Your task to perform on an android device: What's the weather? Image 0: 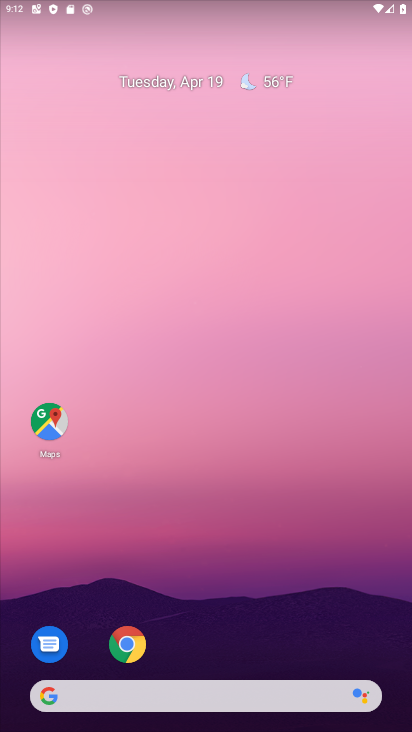
Step 0: drag from (213, 641) to (218, 137)
Your task to perform on an android device: What's the weather? Image 1: 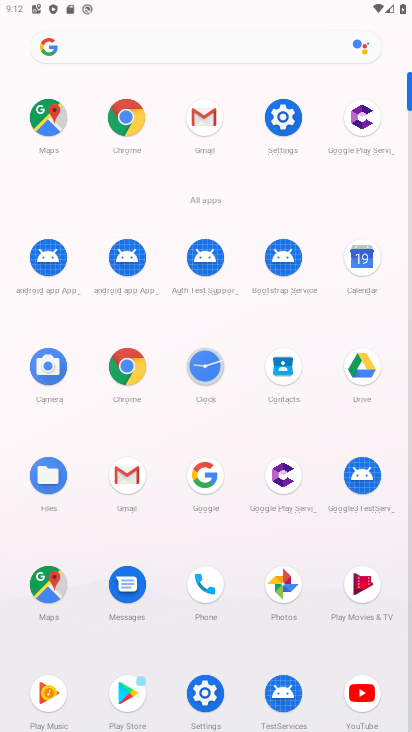
Step 1: click (196, 470)
Your task to perform on an android device: What's the weather? Image 2: 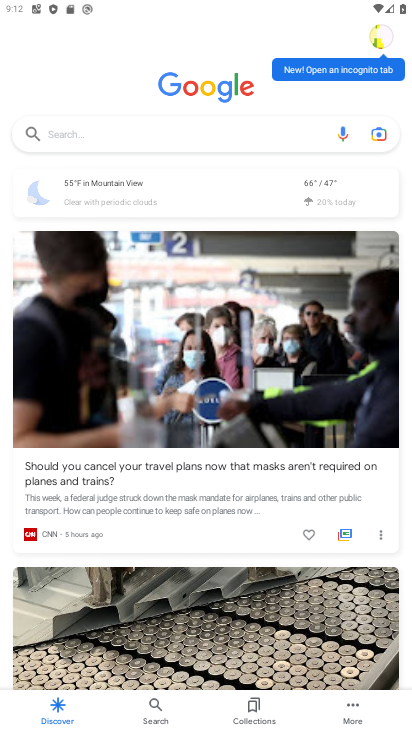
Step 2: click (144, 201)
Your task to perform on an android device: What's the weather? Image 3: 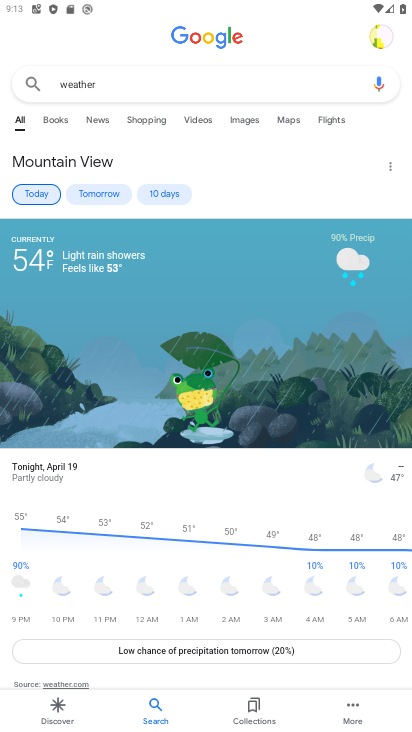
Step 3: task complete